Your task to perform on an android device: Search for Mexican restaurants on Maps Image 0: 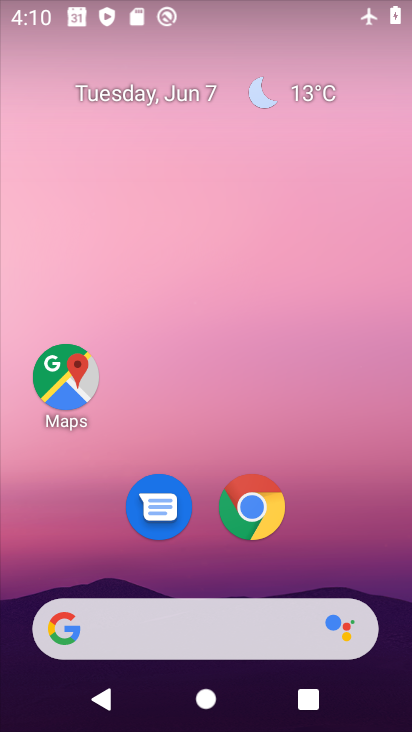
Step 0: drag from (343, 556) to (292, 24)
Your task to perform on an android device: Search for Mexican restaurants on Maps Image 1: 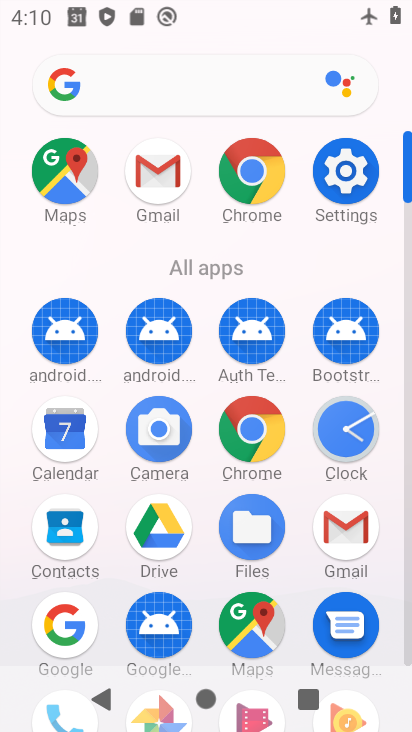
Step 1: drag from (14, 582) to (22, 206)
Your task to perform on an android device: Search for Mexican restaurants on Maps Image 2: 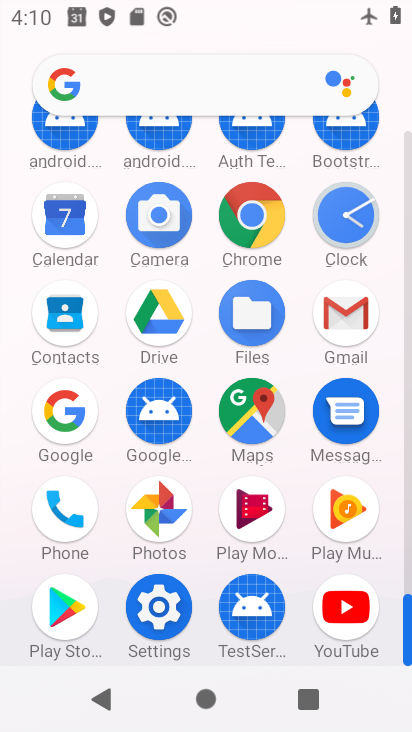
Step 2: click (252, 407)
Your task to perform on an android device: Search for Mexican restaurants on Maps Image 3: 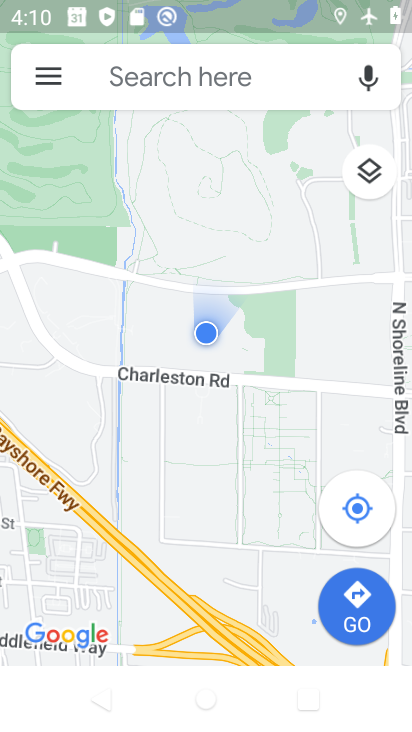
Step 3: click (296, 80)
Your task to perform on an android device: Search for Mexican restaurants on Maps Image 4: 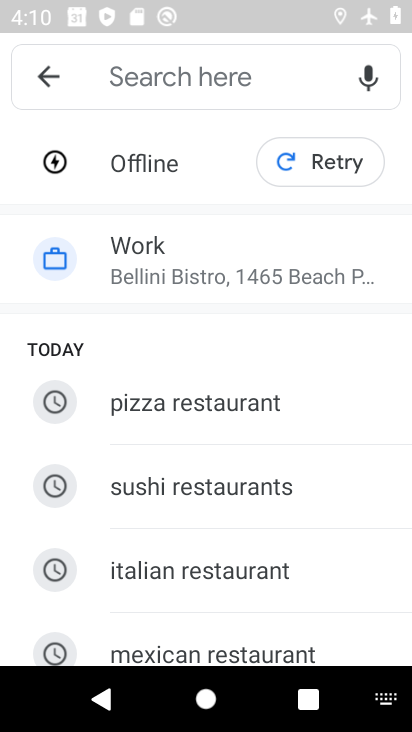
Step 4: drag from (236, 594) to (251, 351)
Your task to perform on an android device: Search for Mexican restaurants on Maps Image 5: 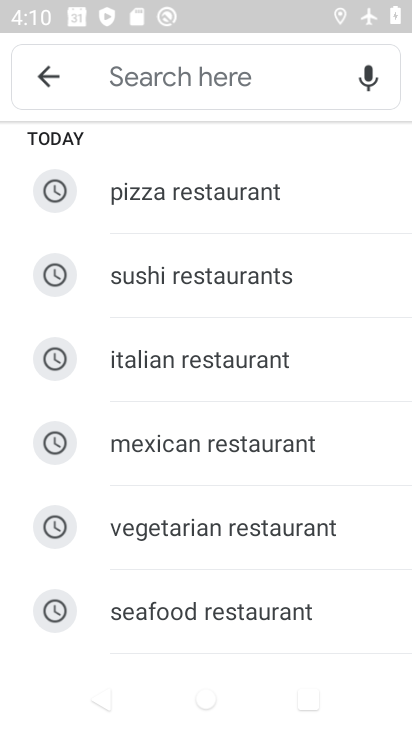
Step 5: click (178, 434)
Your task to perform on an android device: Search for Mexican restaurants on Maps Image 6: 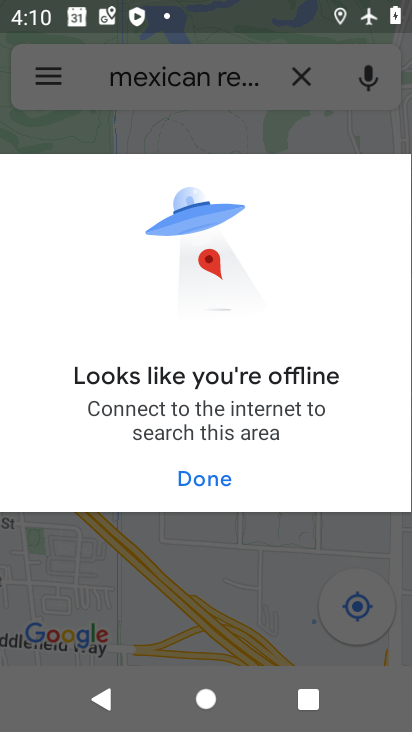
Step 6: task complete